Your task to perform on an android device: Go to Yahoo.com Image 0: 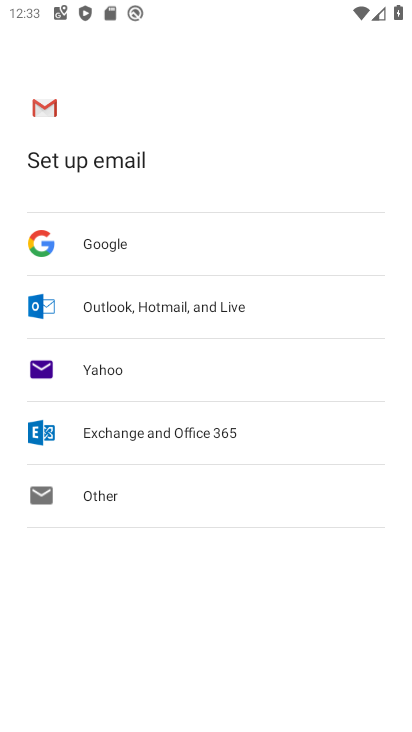
Step 0: press home button
Your task to perform on an android device: Go to Yahoo.com Image 1: 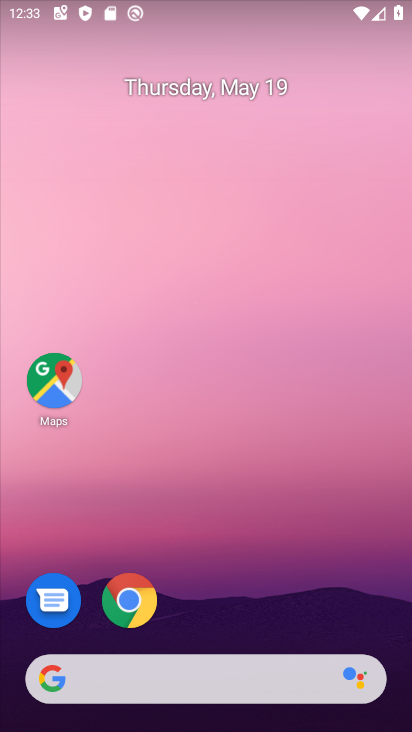
Step 1: click (152, 601)
Your task to perform on an android device: Go to Yahoo.com Image 2: 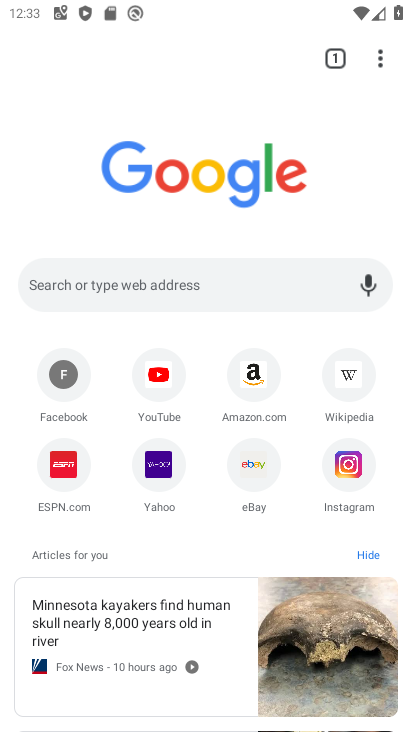
Step 2: click (167, 459)
Your task to perform on an android device: Go to Yahoo.com Image 3: 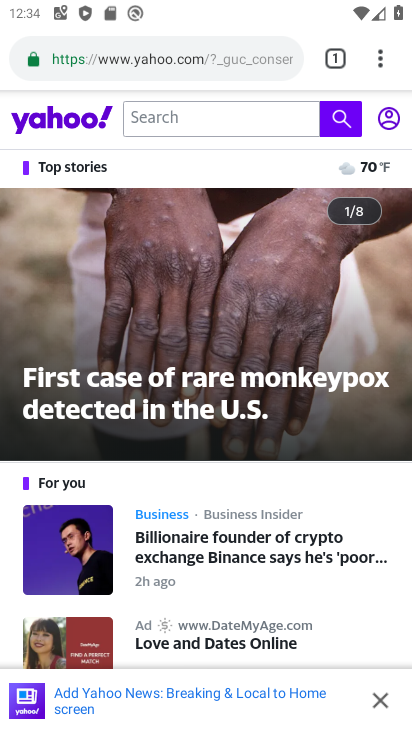
Step 3: task complete